Your task to perform on an android device: turn on priority inbox in the gmail app Image 0: 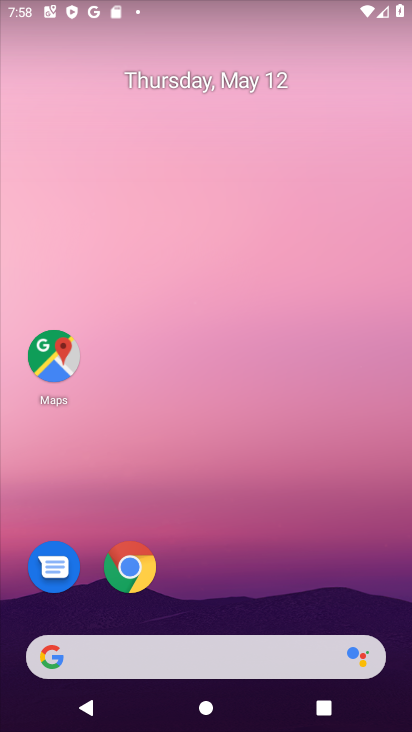
Step 0: drag from (231, 610) to (297, 102)
Your task to perform on an android device: turn on priority inbox in the gmail app Image 1: 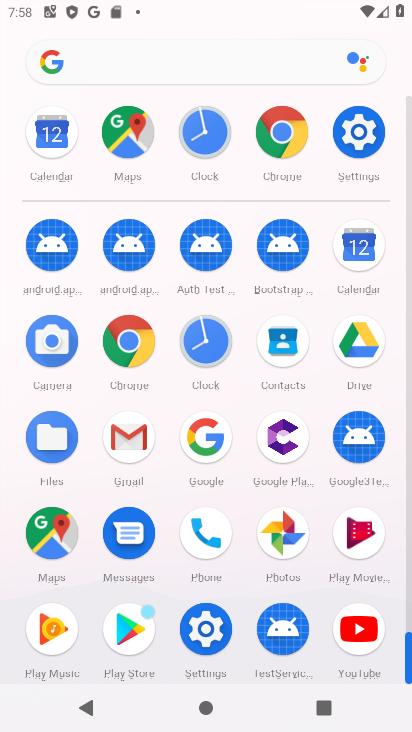
Step 1: click (137, 445)
Your task to perform on an android device: turn on priority inbox in the gmail app Image 2: 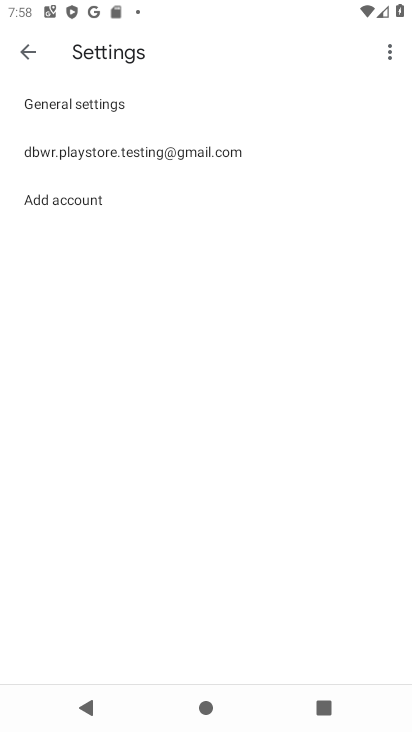
Step 2: click (239, 155)
Your task to perform on an android device: turn on priority inbox in the gmail app Image 3: 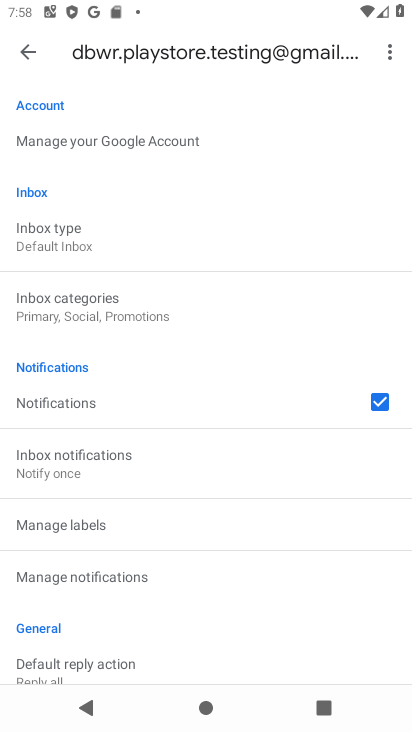
Step 3: click (164, 321)
Your task to perform on an android device: turn on priority inbox in the gmail app Image 4: 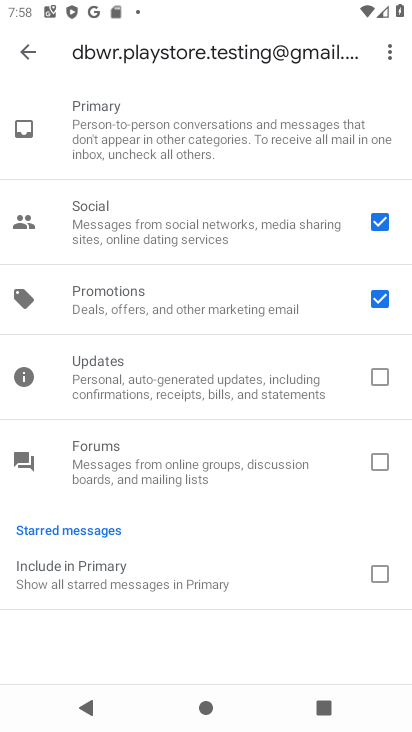
Step 4: drag from (158, 439) to (215, 197)
Your task to perform on an android device: turn on priority inbox in the gmail app Image 5: 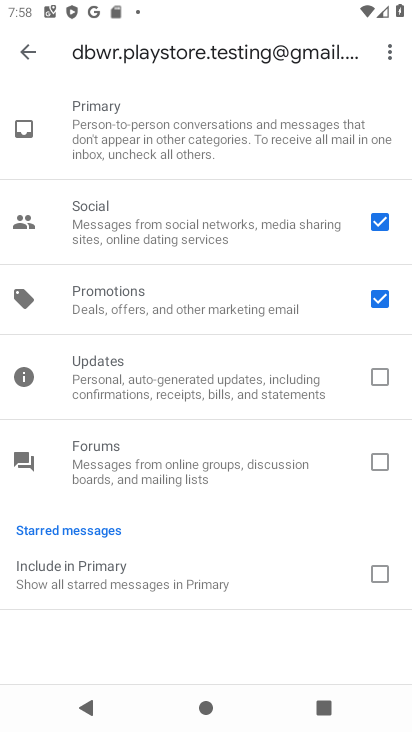
Step 5: drag from (222, 238) to (207, 613)
Your task to perform on an android device: turn on priority inbox in the gmail app Image 6: 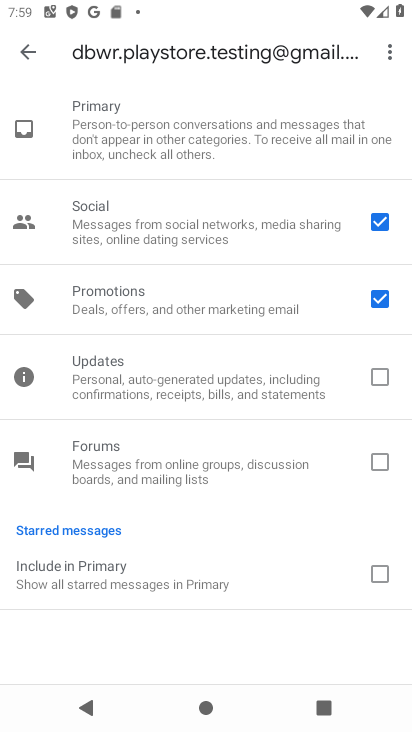
Step 6: click (26, 46)
Your task to perform on an android device: turn on priority inbox in the gmail app Image 7: 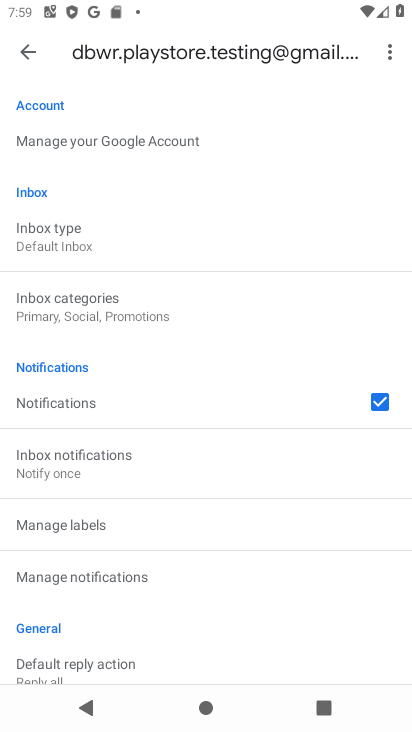
Step 7: drag from (138, 457) to (193, 113)
Your task to perform on an android device: turn on priority inbox in the gmail app Image 8: 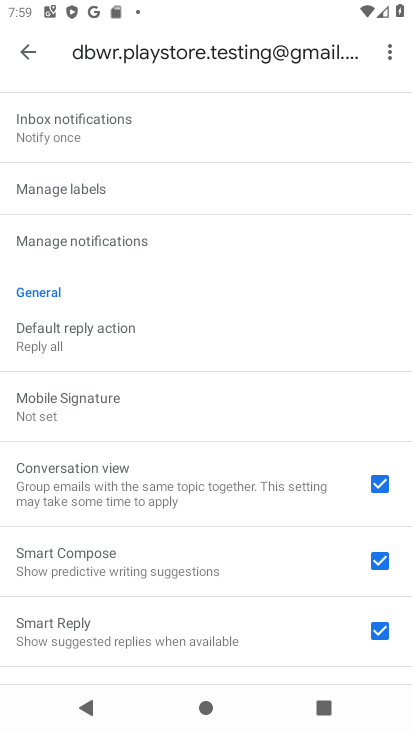
Step 8: drag from (181, 551) to (180, 717)
Your task to perform on an android device: turn on priority inbox in the gmail app Image 9: 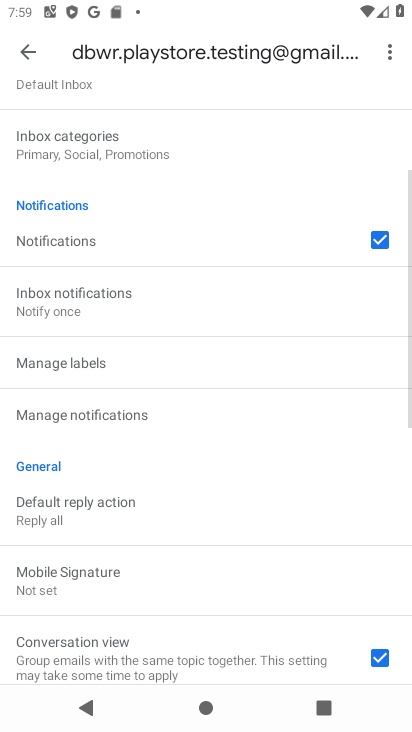
Step 9: drag from (168, 171) to (171, 593)
Your task to perform on an android device: turn on priority inbox in the gmail app Image 10: 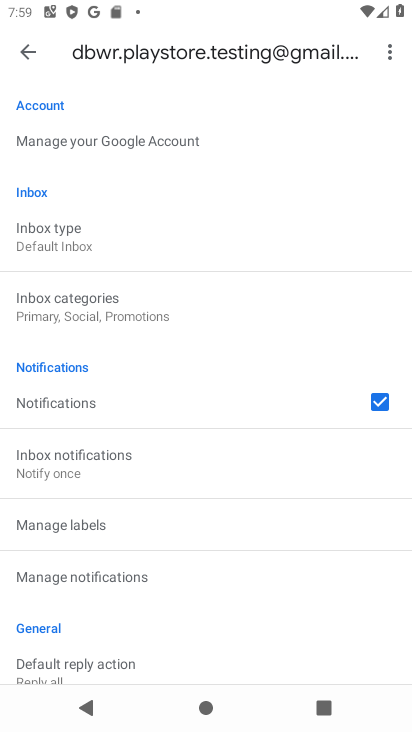
Step 10: click (131, 235)
Your task to perform on an android device: turn on priority inbox in the gmail app Image 11: 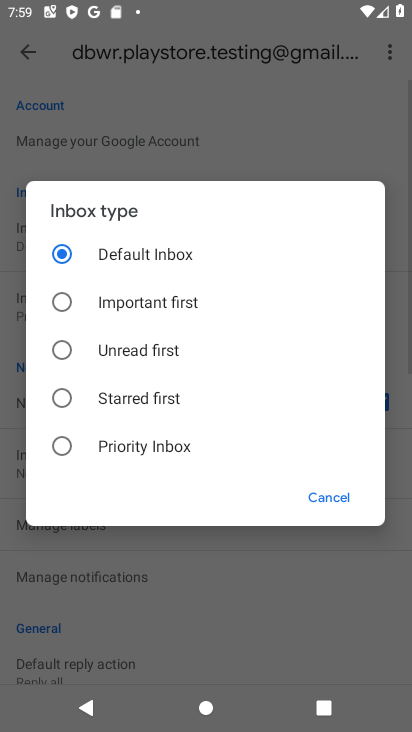
Step 11: click (64, 453)
Your task to perform on an android device: turn on priority inbox in the gmail app Image 12: 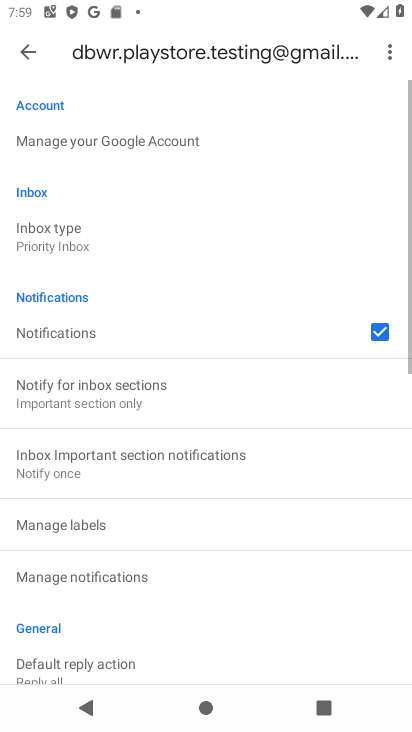
Step 12: task complete